Your task to perform on an android device: find photos in the google photos app Image 0: 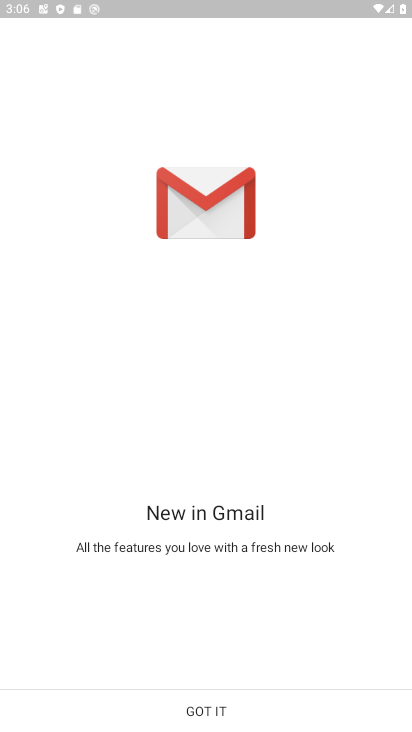
Step 0: press home button
Your task to perform on an android device: find photos in the google photos app Image 1: 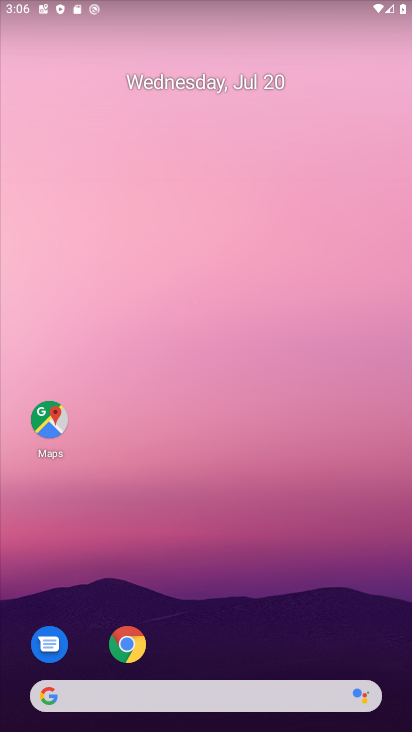
Step 1: drag from (187, 657) to (177, 255)
Your task to perform on an android device: find photos in the google photos app Image 2: 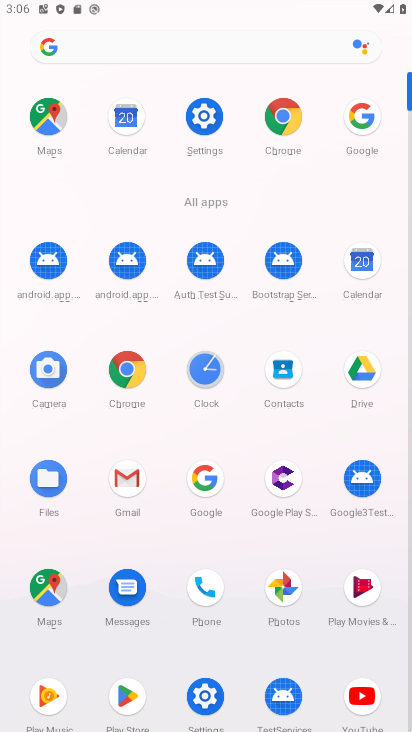
Step 2: click (278, 586)
Your task to perform on an android device: find photos in the google photos app Image 3: 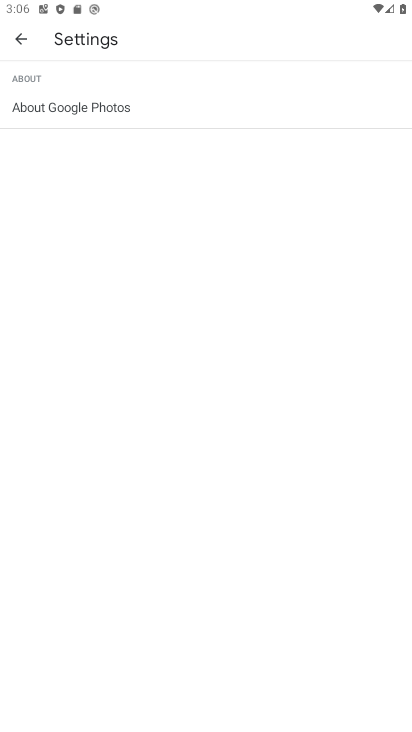
Step 3: click (21, 40)
Your task to perform on an android device: find photos in the google photos app Image 4: 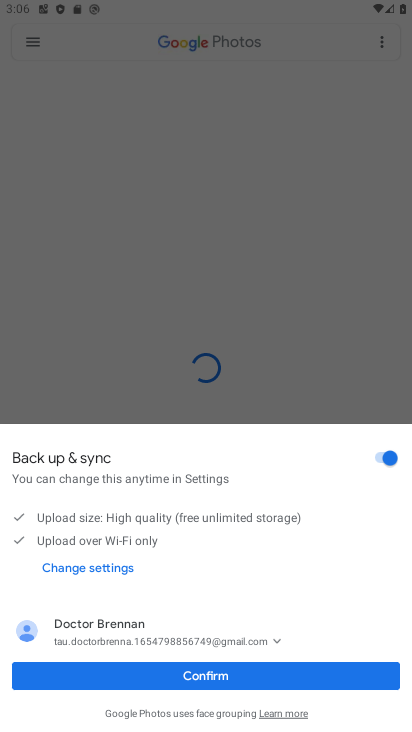
Step 4: click (211, 674)
Your task to perform on an android device: find photos in the google photos app Image 5: 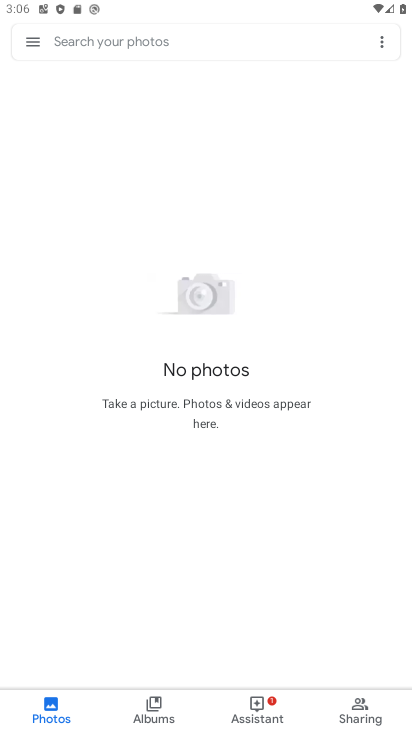
Step 5: task complete